Your task to perform on an android device: open the mobile data screen to see how much data has been used Image 0: 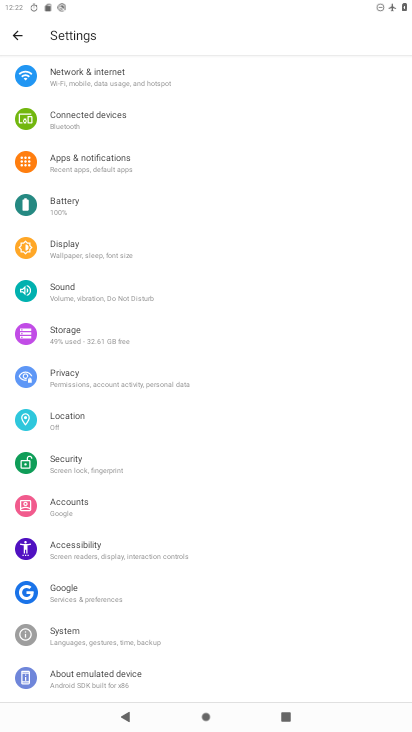
Step 0: press home button
Your task to perform on an android device: open the mobile data screen to see how much data has been used Image 1: 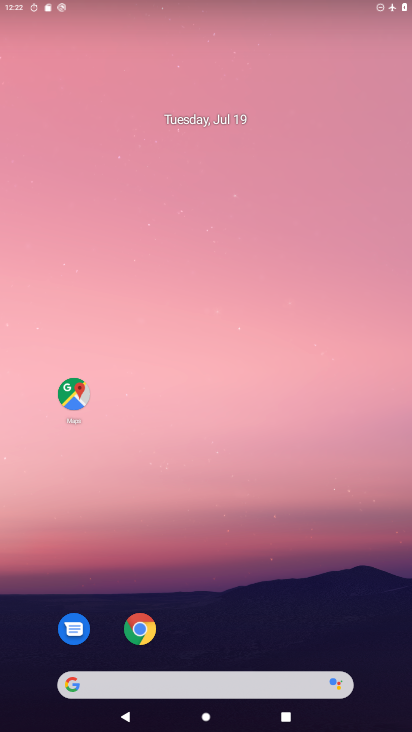
Step 1: drag from (332, 591) to (157, 69)
Your task to perform on an android device: open the mobile data screen to see how much data has been used Image 2: 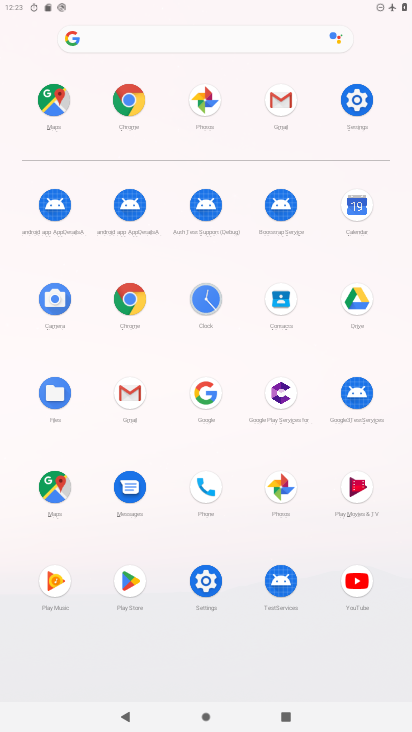
Step 2: click (355, 102)
Your task to perform on an android device: open the mobile data screen to see how much data has been used Image 3: 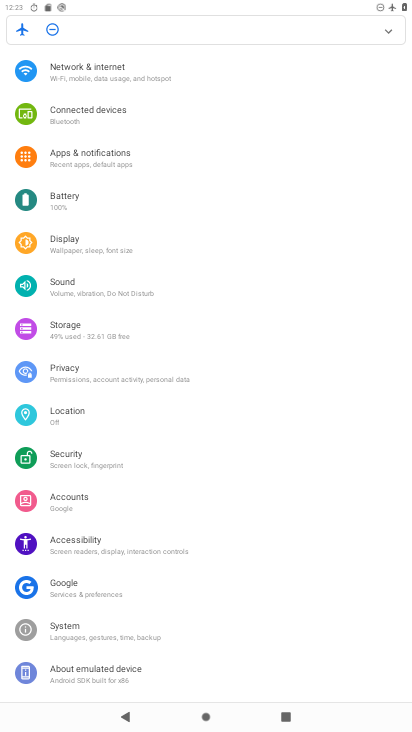
Step 3: click (92, 75)
Your task to perform on an android device: open the mobile data screen to see how much data has been used Image 4: 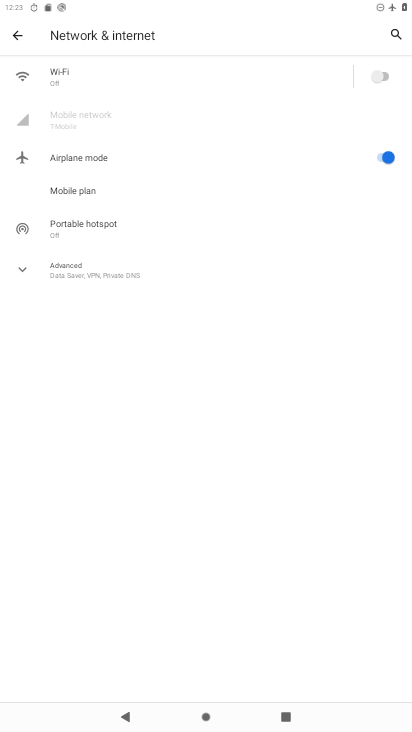
Step 4: click (109, 121)
Your task to perform on an android device: open the mobile data screen to see how much data has been used Image 5: 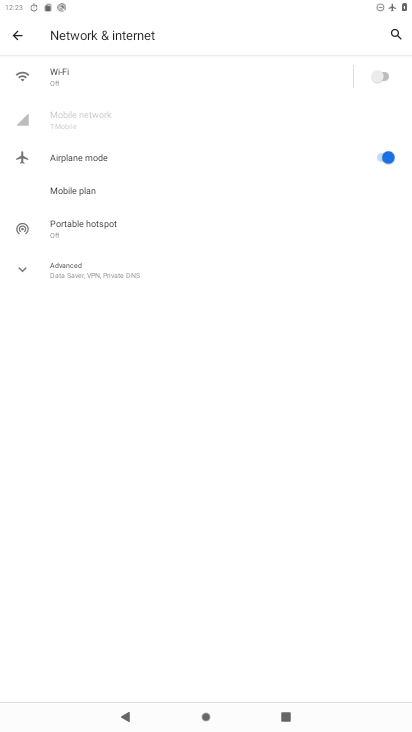
Step 5: task complete